Your task to perform on an android device: change your default location settings in chrome Image 0: 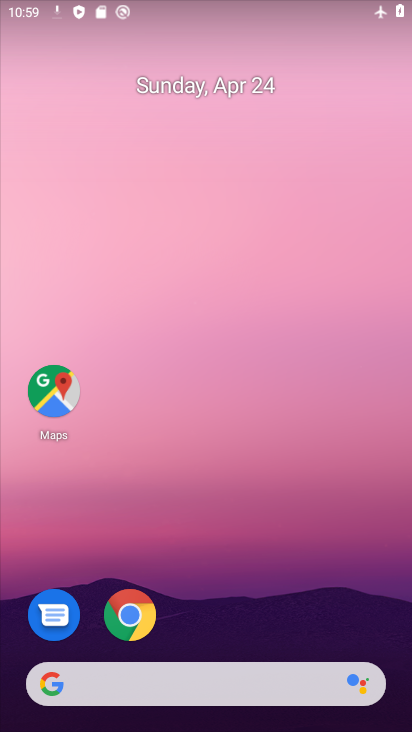
Step 0: click (252, 646)
Your task to perform on an android device: change your default location settings in chrome Image 1: 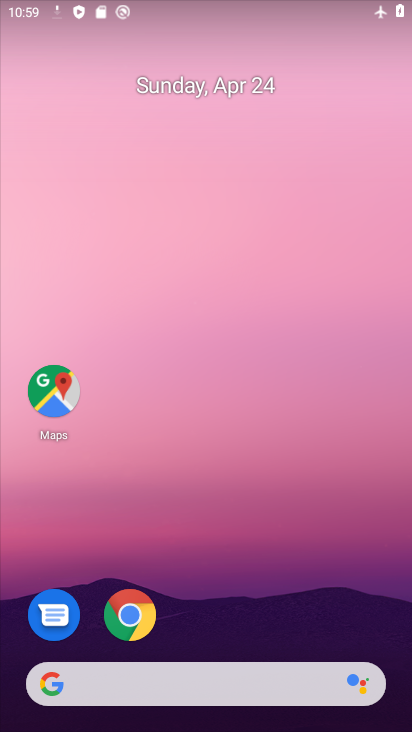
Step 1: click (156, 618)
Your task to perform on an android device: change your default location settings in chrome Image 2: 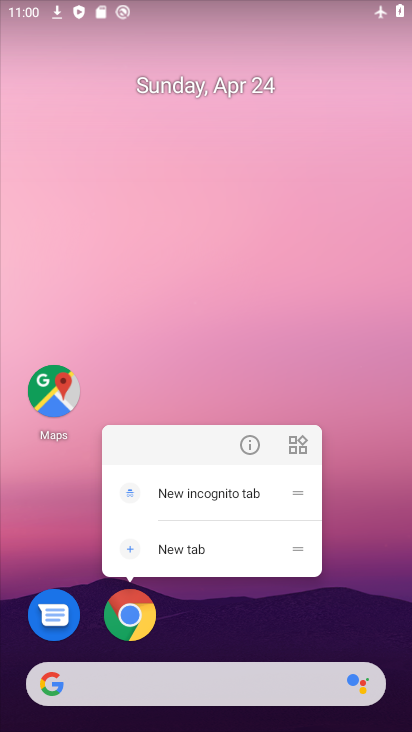
Step 2: click (134, 598)
Your task to perform on an android device: change your default location settings in chrome Image 3: 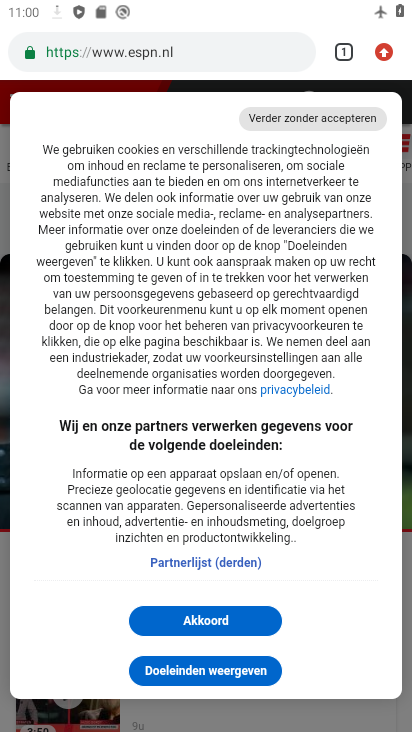
Step 3: click (378, 55)
Your task to perform on an android device: change your default location settings in chrome Image 4: 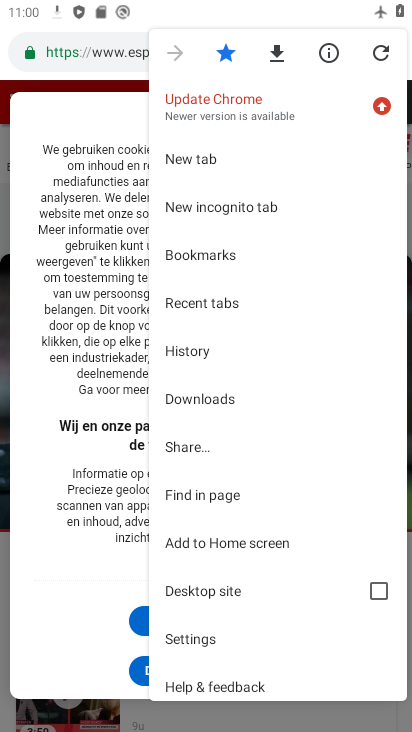
Step 4: click (223, 633)
Your task to perform on an android device: change your default location settings in chrome Image 5: 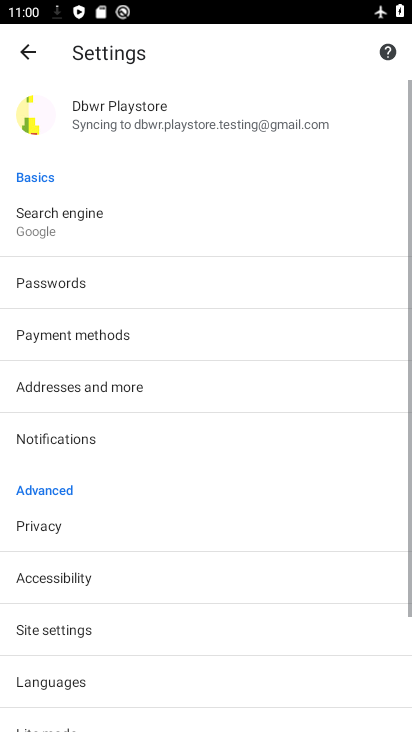
Step 5: drag from (223, 633) to (286, 223)
Your task to perform on an android device: change your default location settings in chrome Image 6: 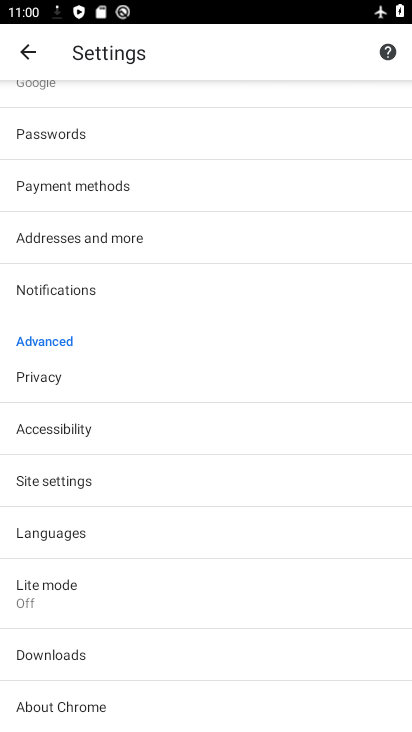
Step 6: click (166, 247)
Your task to perform on an android device: change your default location settings in chrome Image 7: 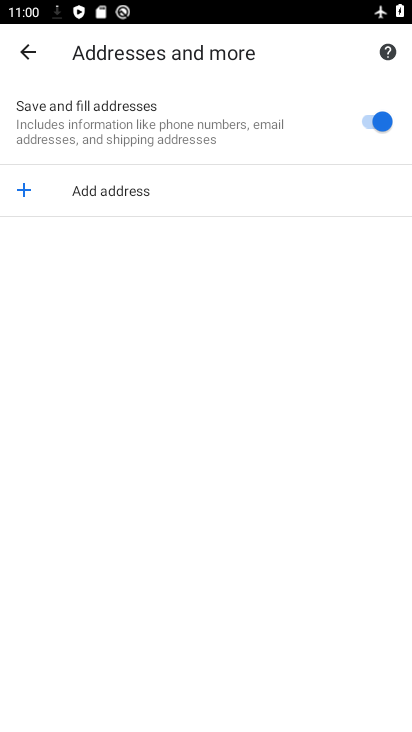
Step 7: task complete